Your task to perform on an android device: change your default location settings in chrome Image 0: 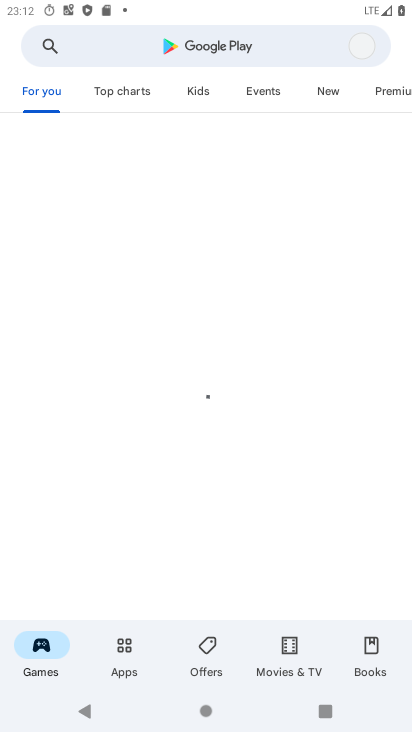
Step 0: press home button
Your task to perform on an android device: change your default location settings in chrome Image 1: 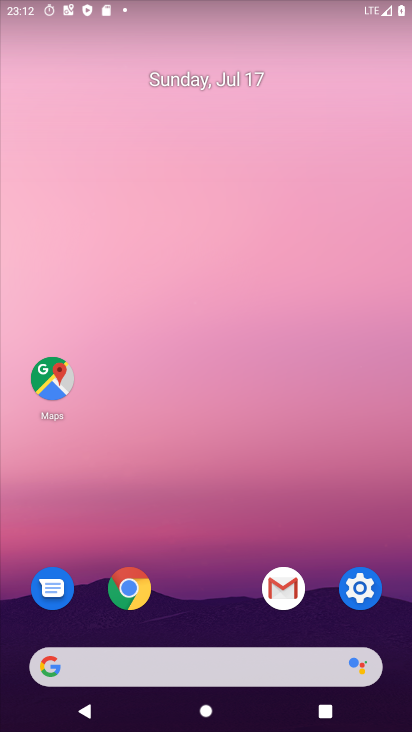
Step 1: click (121, 592)
Your task to perform on an android device: change your default location settings in chrome Image 2: 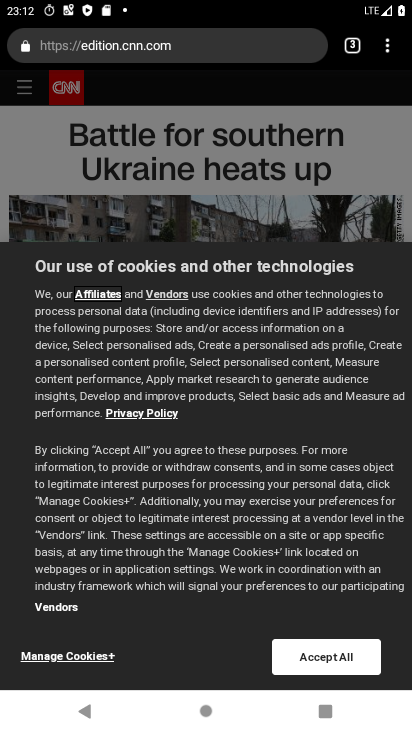
Step 2: click (390, 56)
Your task to perform on an android device: change your default location settings in chrome Image 3: 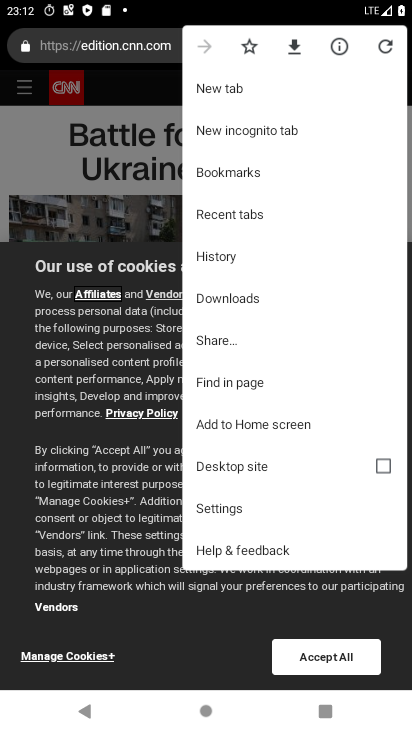
Step 3: click (259, 501)
Your task to perform on an android device: change your default location settings in chrome Image 4: 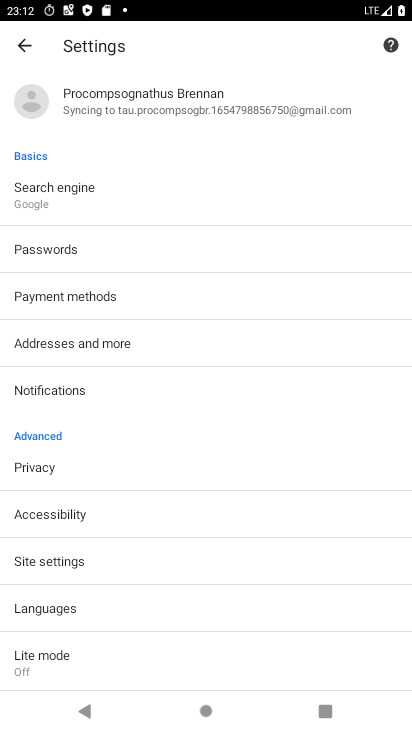
Step 4: click (84, 563)
Your task to perform on an android device: change your default location settings in chrome Image 5: 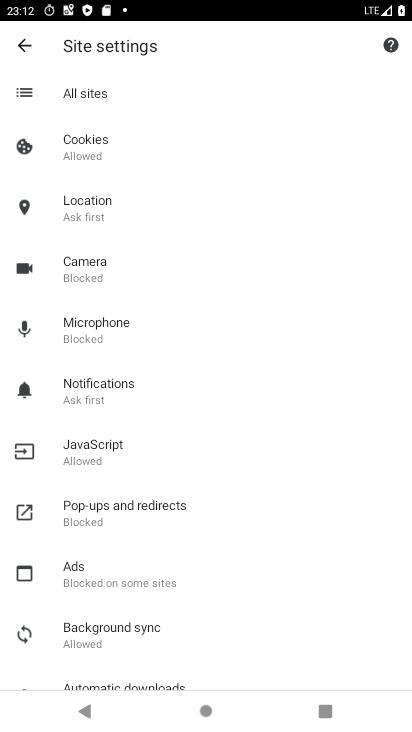
Step 5: click (111, 209)
Your task to perform on an android device: change your default location settings in chrome Image 6: 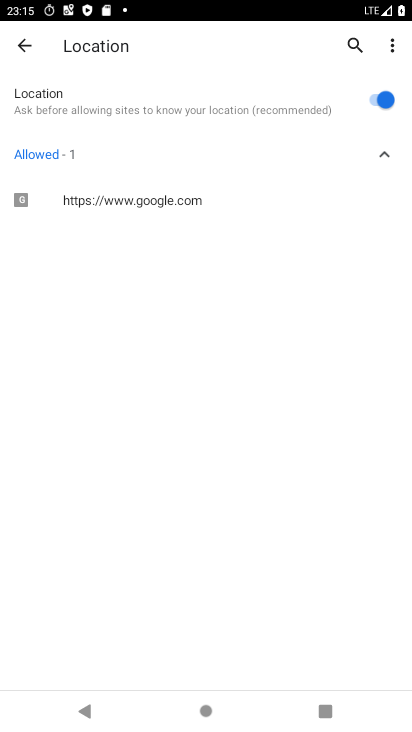
Step 6: task complete